Your task to perform on an android device: Check the news Image 0: 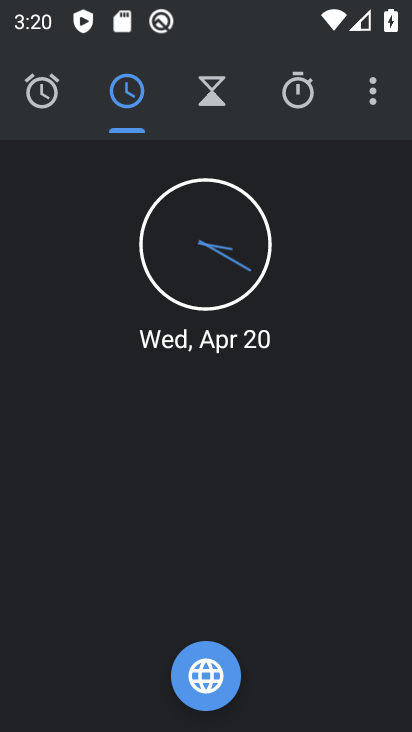
Step 0: press back button
Your task to perform on an android device: Check the news Image 1: 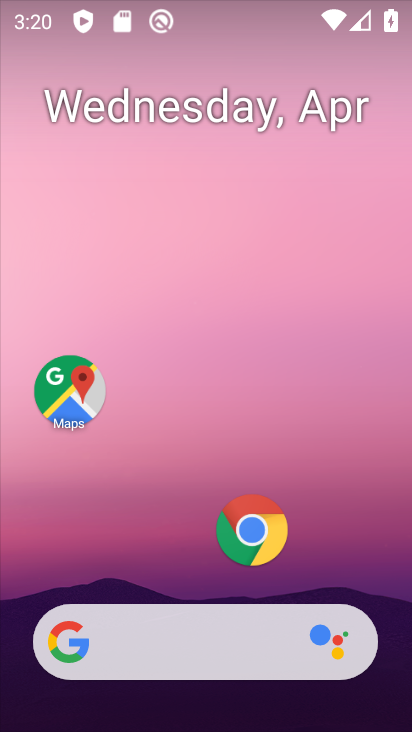
Step 1: click (173, 655)
Your task to perform on an android device: Check the news Image 2: 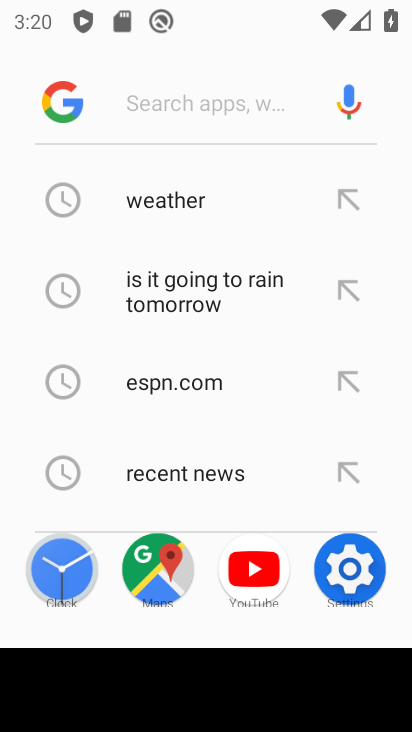
Step 2: click (172, 469)
Your task to perform on an android device: Check the news Image 3: 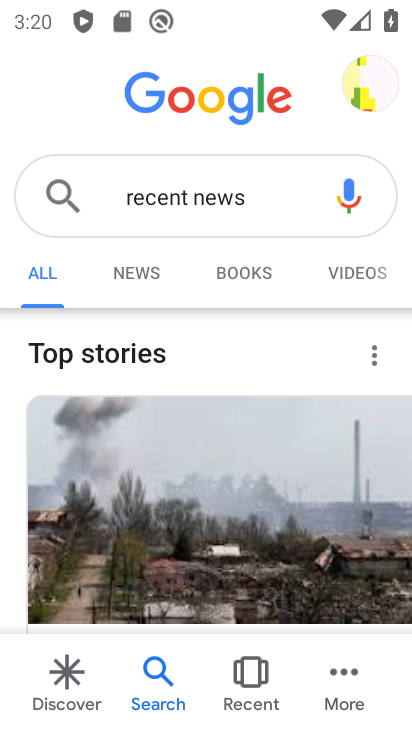
Step 3: task complete